Your task to perform on an android device: Open the calendar app, open the side menu, and click the "Day" option Image 0: 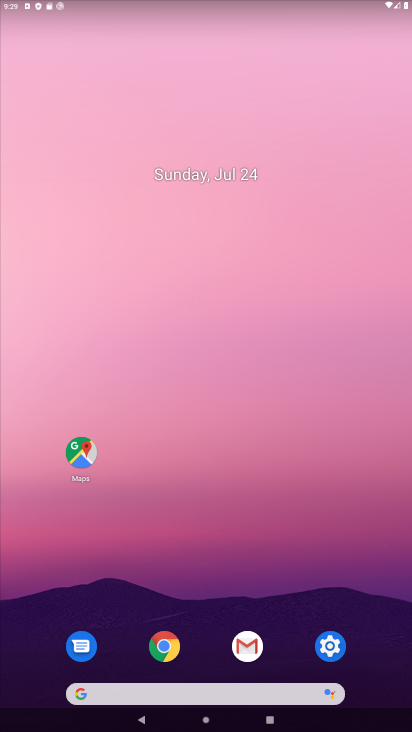
Step 0: drag from (261, 701) to (194, 133)
Your task to perform on an android device: Open the calendar app, open the side menu, and click the "Day" option Image 1: 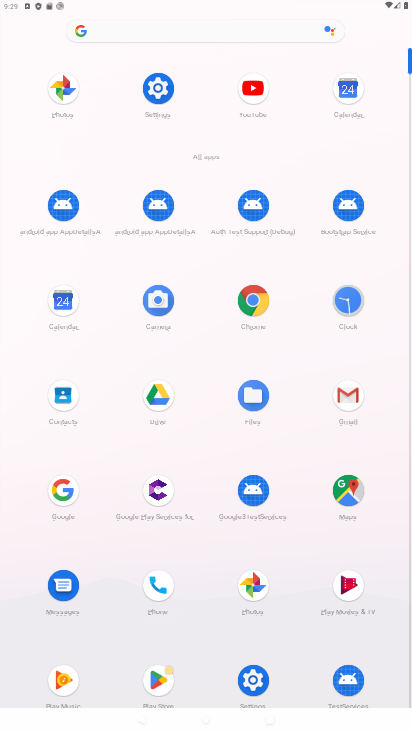
Step 1: click (58, 289)
Your task to perform on an android device: Open the calendar app, open the side menu, and click the "Day" option Image 2: 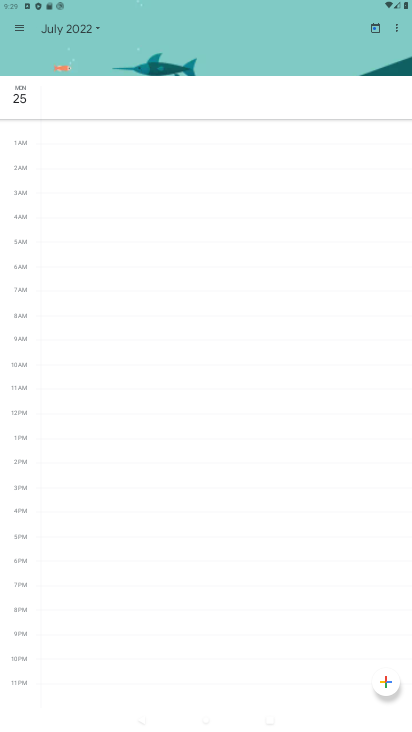
Step 2: click (25, 35)
Your task to perform on an android device: Open the calendar app, open the side menu, and click the "Day" option Image 3: 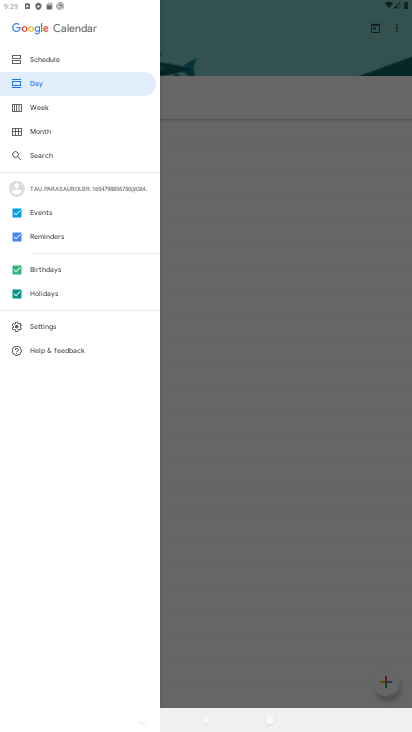
Step 3: click (50, 88)
Your task to perform on an android device: Open the calendar app, open the side menu, and click the "Day" option Image 4: 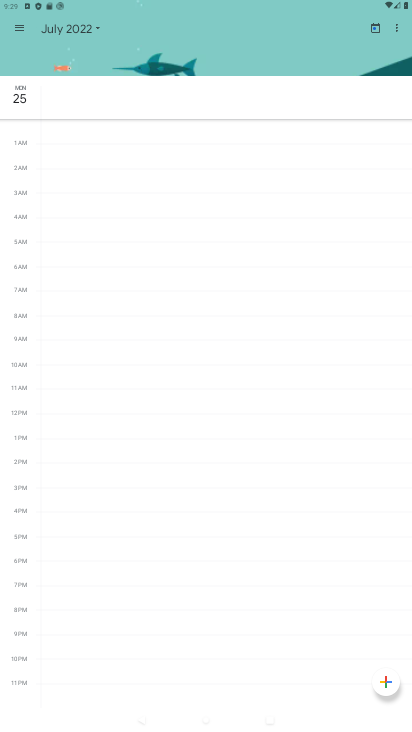
Step 4: task complete